Your task to perform on an android device: Open Android settings Image 0: 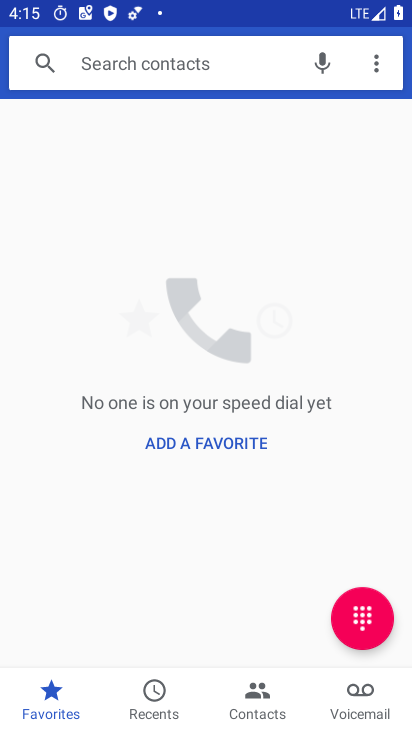
Step 0: press home button
Your task to perform on an android device: Open Android settings Image 1: 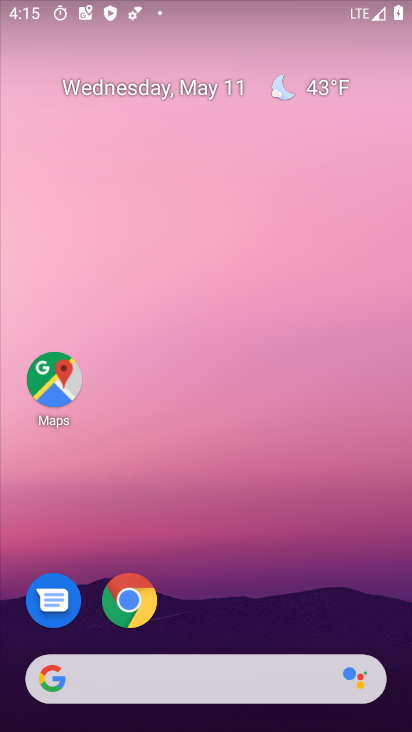
Step 1: drag from (264, 627) to (244, 24)
Your task to perform on an android device: Open Android settings Image 2: 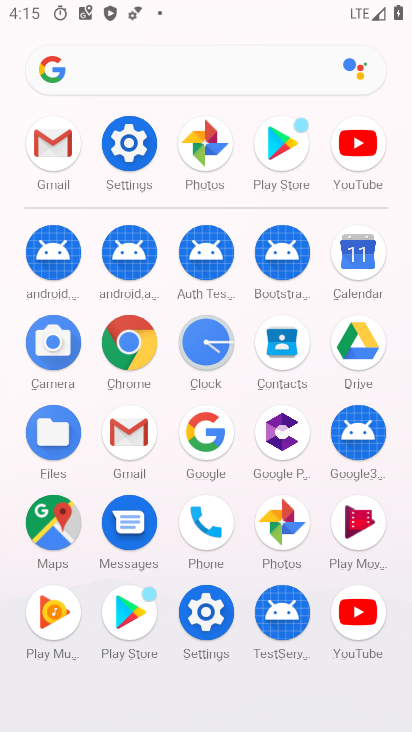
Step 2: click (125, 145)
Your task to perform on an android device: Open Android settings Image 3: 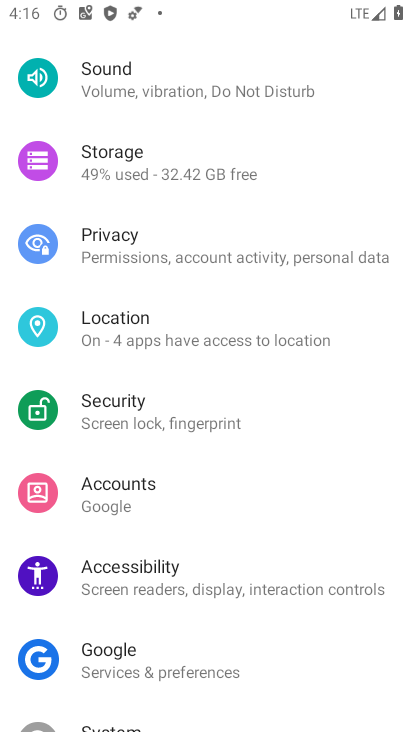
Step 3: task complete